Your task to perform on an android device: Open Yahoo.com Image 0: 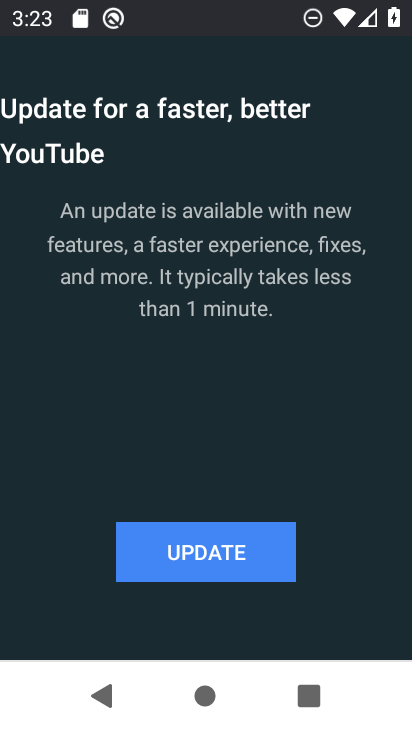
Step 0: press home button
Your task to perform on an android device: Open Yahoo.com Image 1: 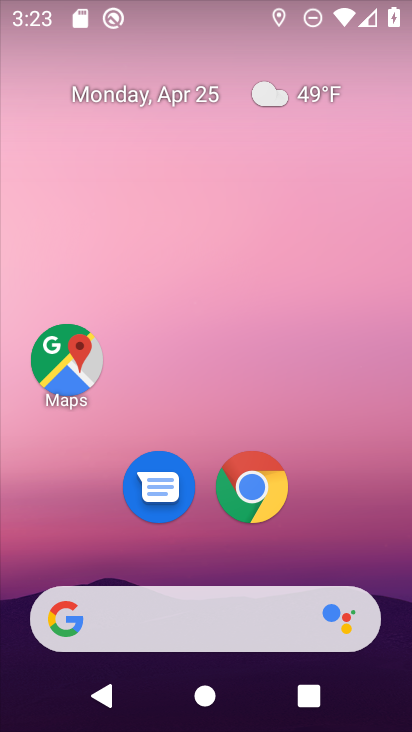
Step 1: click (252, 500)
Your task to perform on an android device: Open Yahoo.com Image 2: 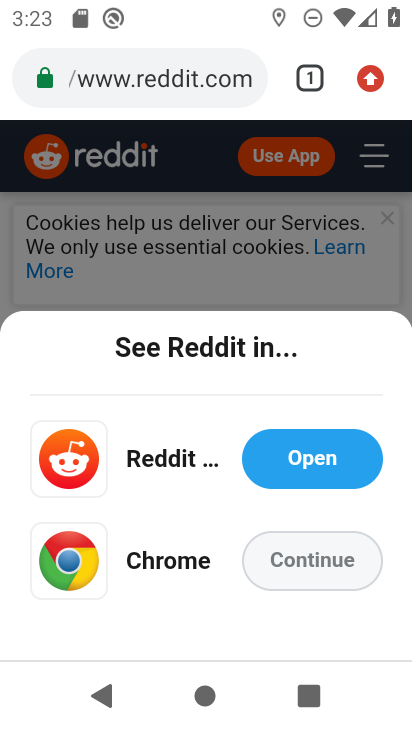
Step 2: click (155, 74)
Your task to perform on an android device: Open Yahoo.com Image 3: 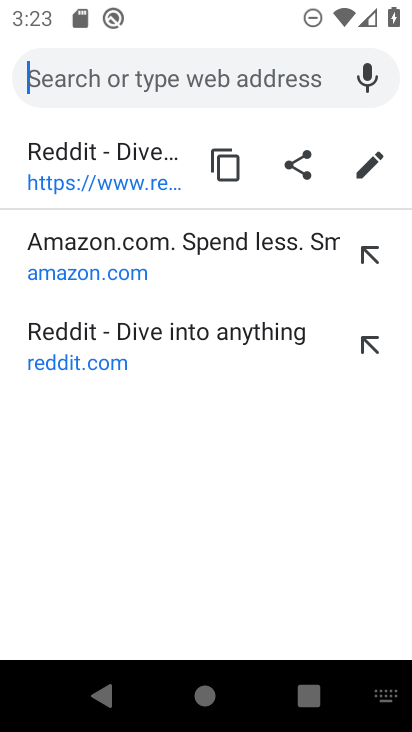
Step 3: type "yahoo.com"
Your task to perform on an android device: Open Yahoo.com Image 4: 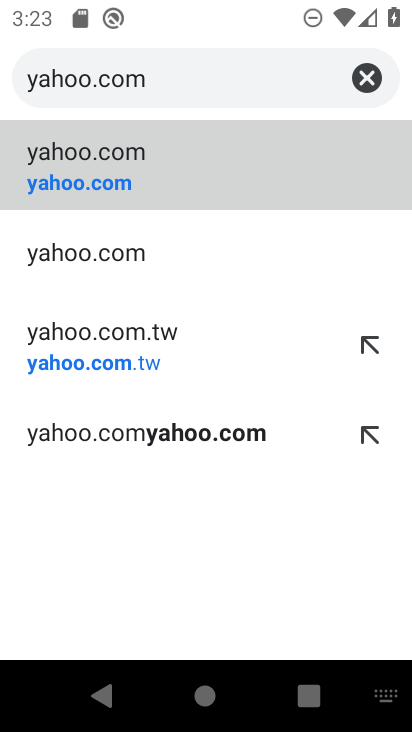
Step 4: click (56, 158)
Your task to perform on an android device: Open Yahoo.com Image 5: 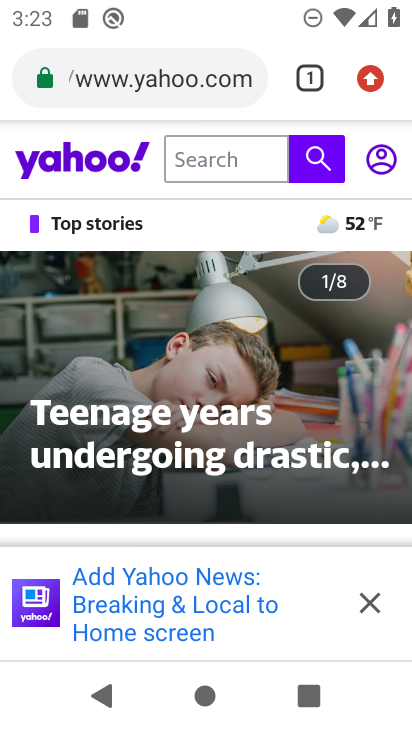
Step 5: task complete